Your task to perform on an android device: Go to eBay Image 0: 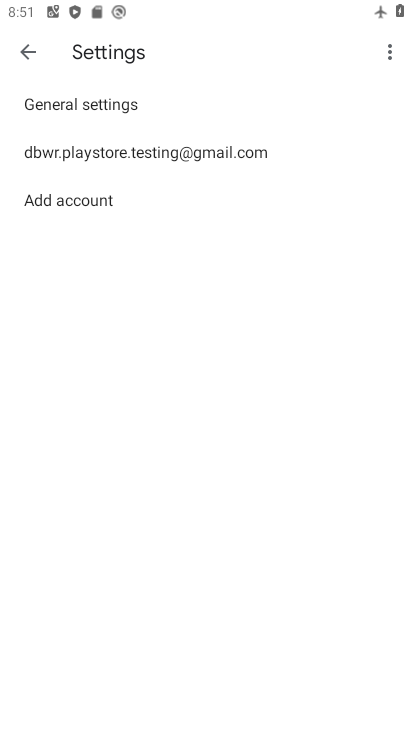
Step 0: press home button
Your task to perform on an android device: Go to eBay Image 1: 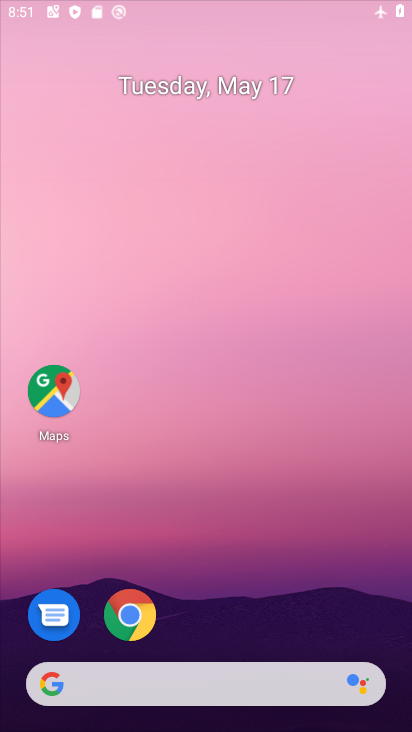
Step 1: drag from (246, 571) to (270, 289)
Your task to perform on an android device: Go to eBay Image 2: 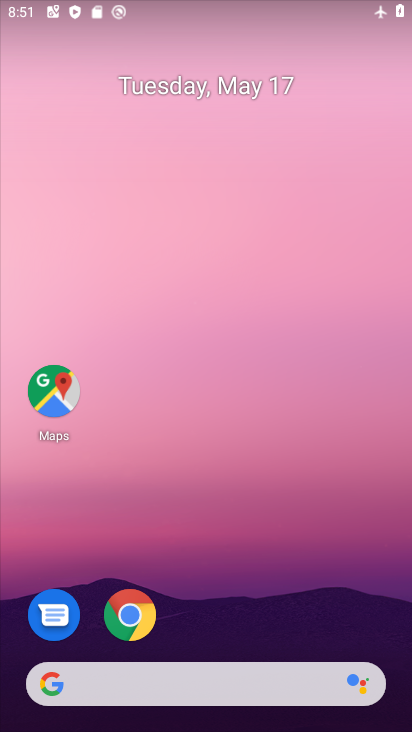
Step 2: click (122, 619)
Your task to perform on an android device: Go to eBay Image 3: 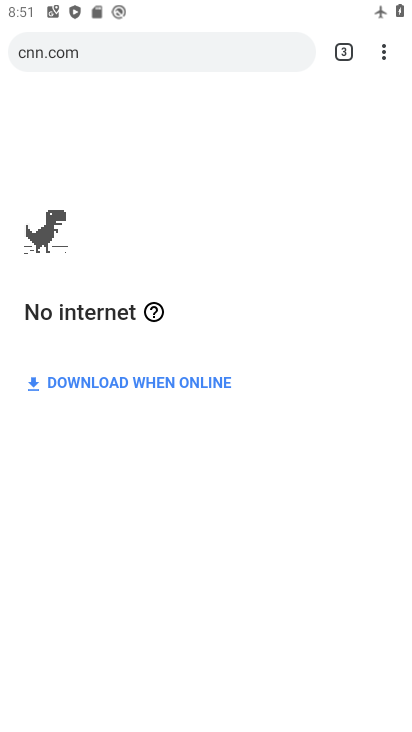
Step 3: click (163, 41)
Your task to perform on an android device: Go to eBay Image 4: 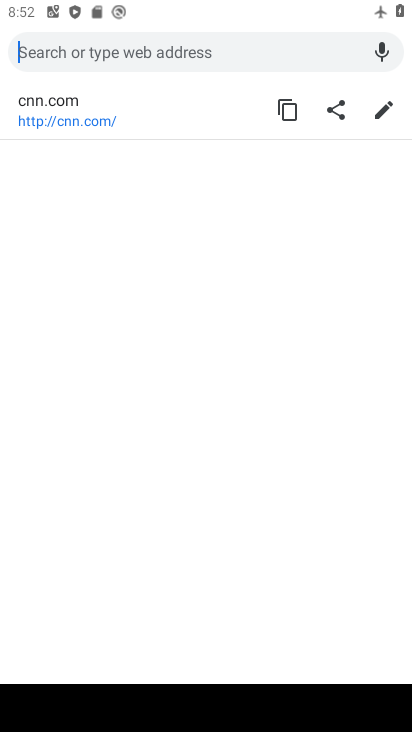
Step 4: type " eBay"
Your task to perform on an android device: Go to eBay Image 5: 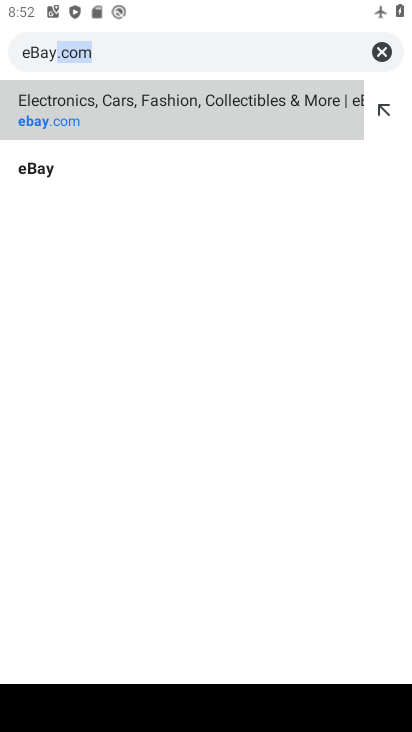
Step 5: click (54, 160)
Your task to perform on an android device: Go to eBay Image 6: 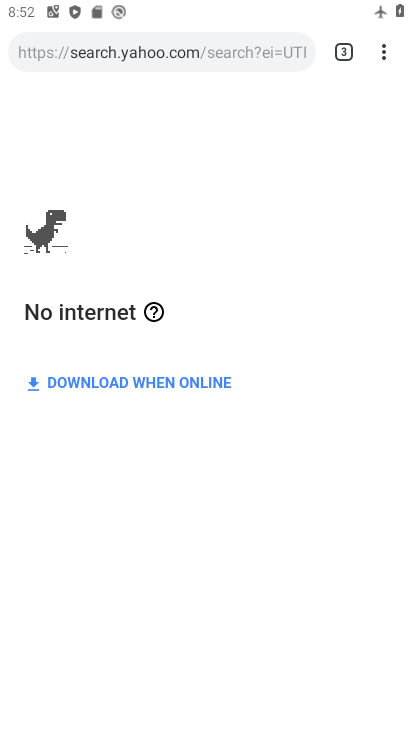
Step 6: task complete